Your task to perform on an android device: Toggle the flashlight Image 0: 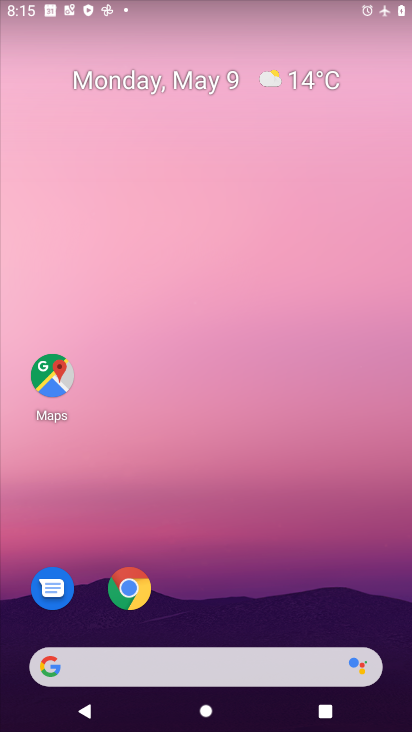
Step 0: drag from (348, 538) to (311, 50)
Your task to perform on an android device: Toggle the flashlight Image 1: 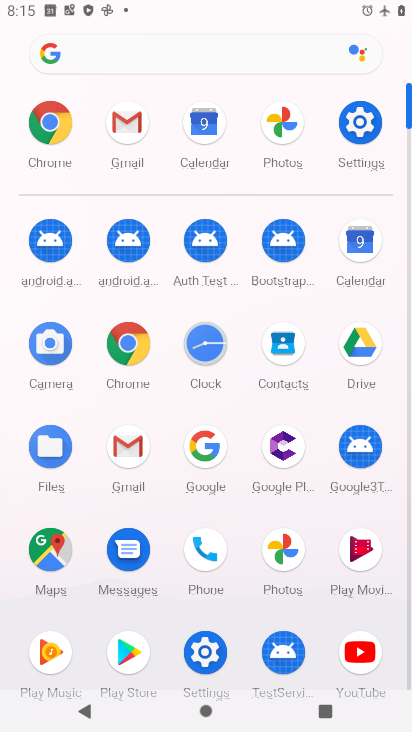
Step 1: click (356, 137)
Your task to perform on an android device: Toggle the flashlight Image 2: 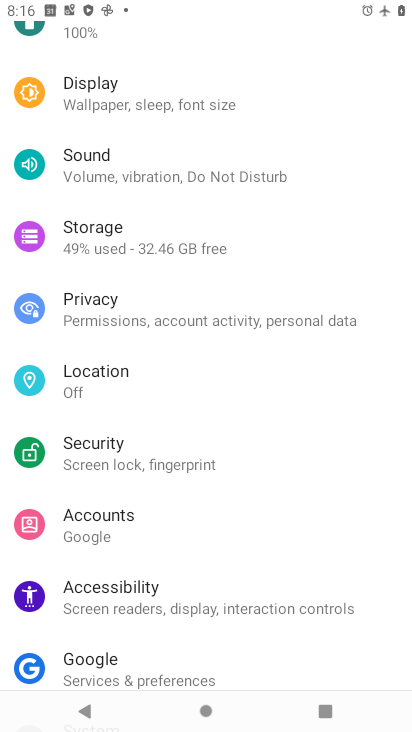
Step 2: task complete